Your task to perform on an android device: delete location history Image 0: 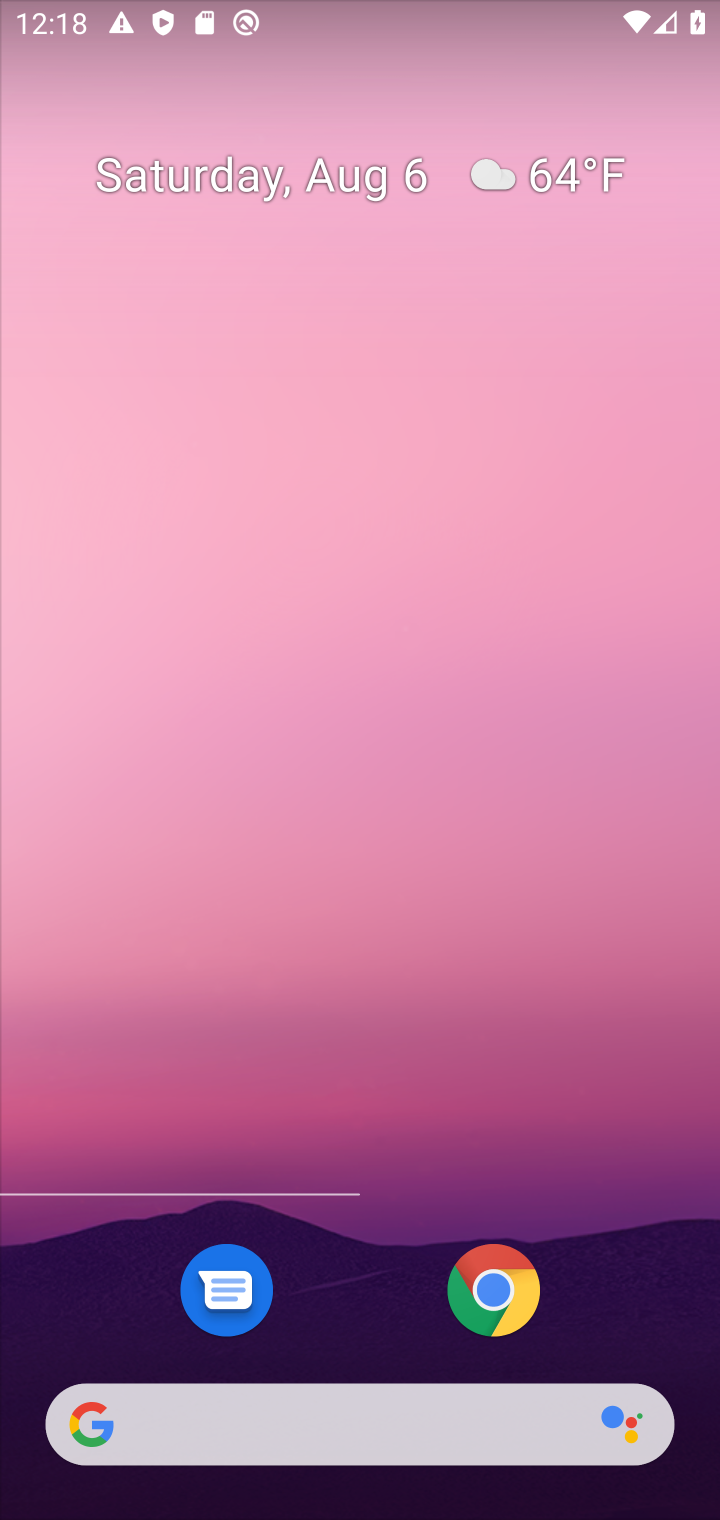
Step 0: press home button
Your task to perform on an android device: delete location history Image 1: 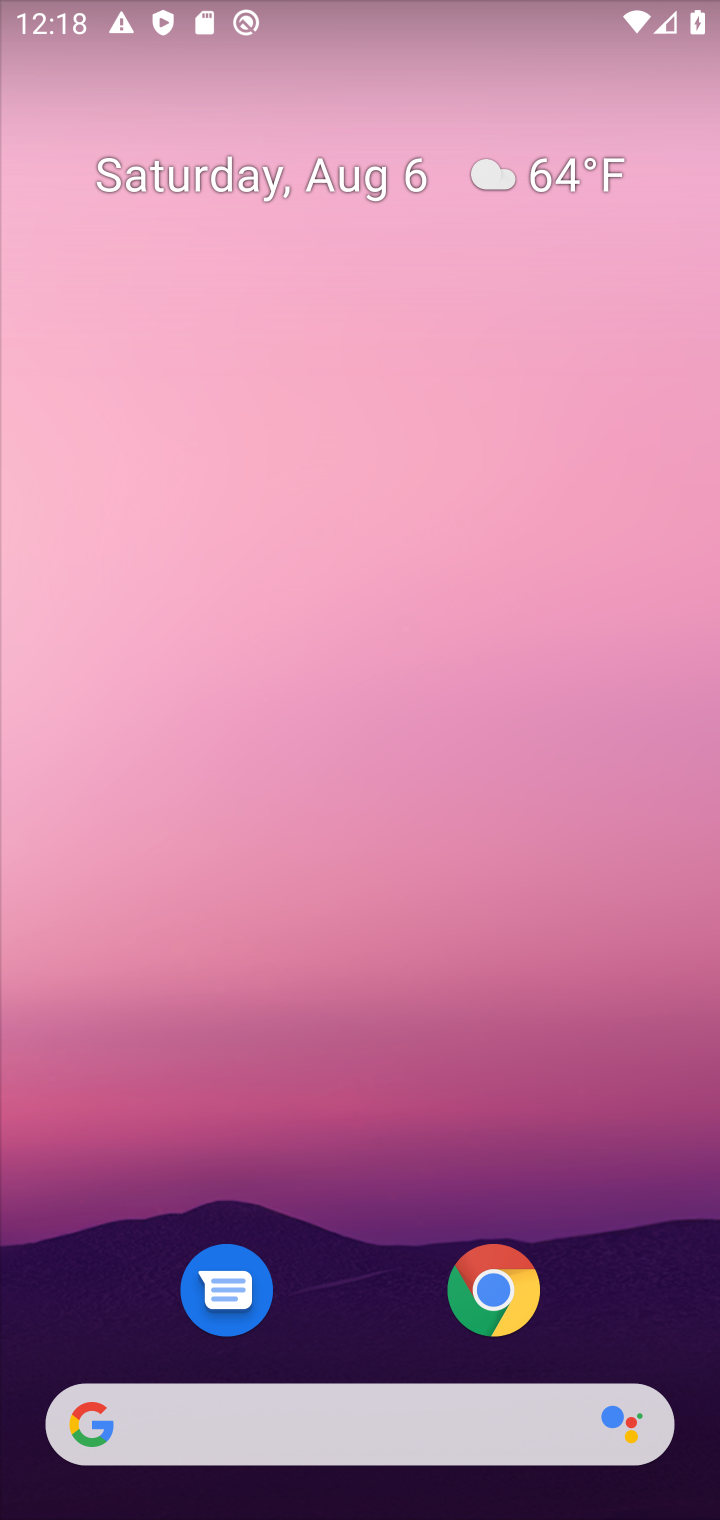
Step 1: press home button
Your task to perform on an android device: delete location history Image 2: 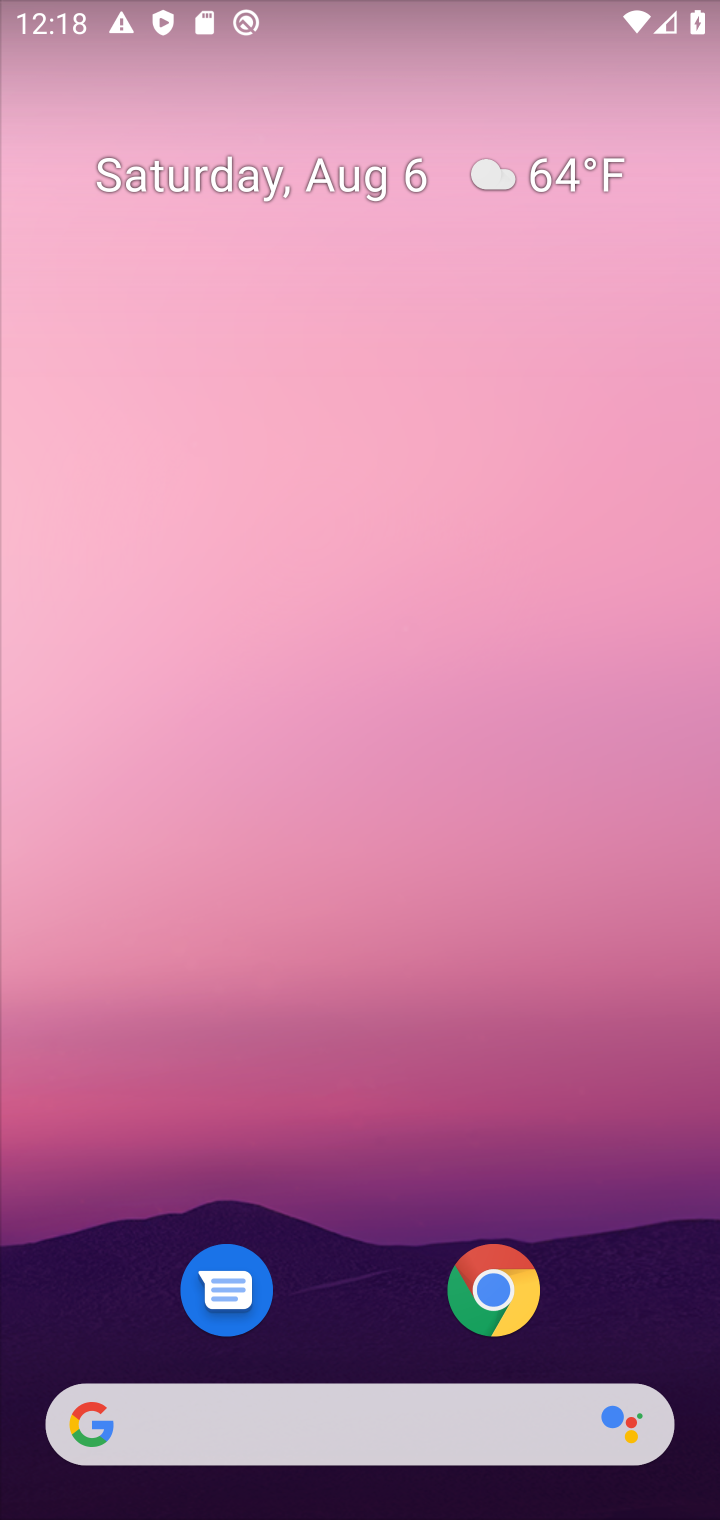
Step 2: drag from (360, 1333) to (355, 5)
Your task to perform on an android device: delete location history Image 3: 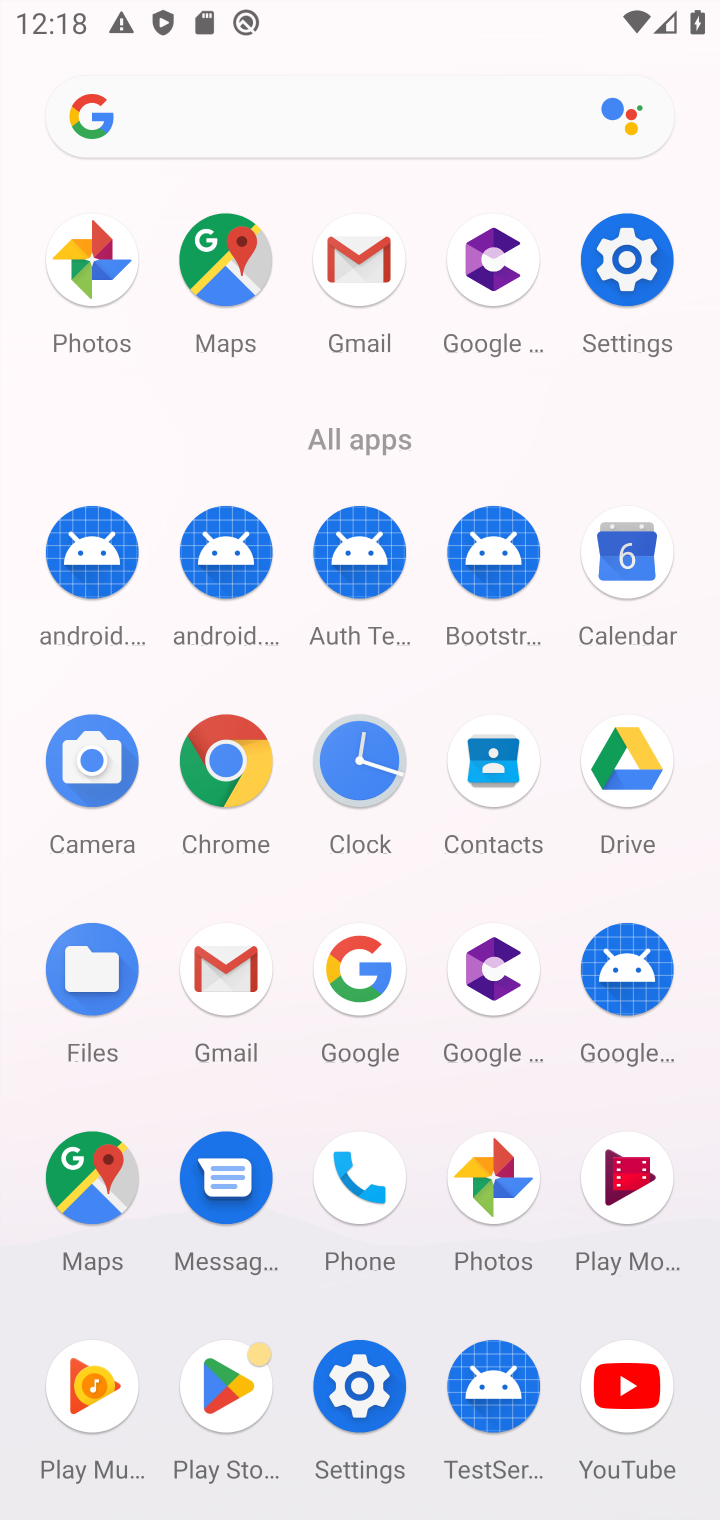
Step 3: click (92, 1174)
Your task to perform on an android device: delete location history Image 4: 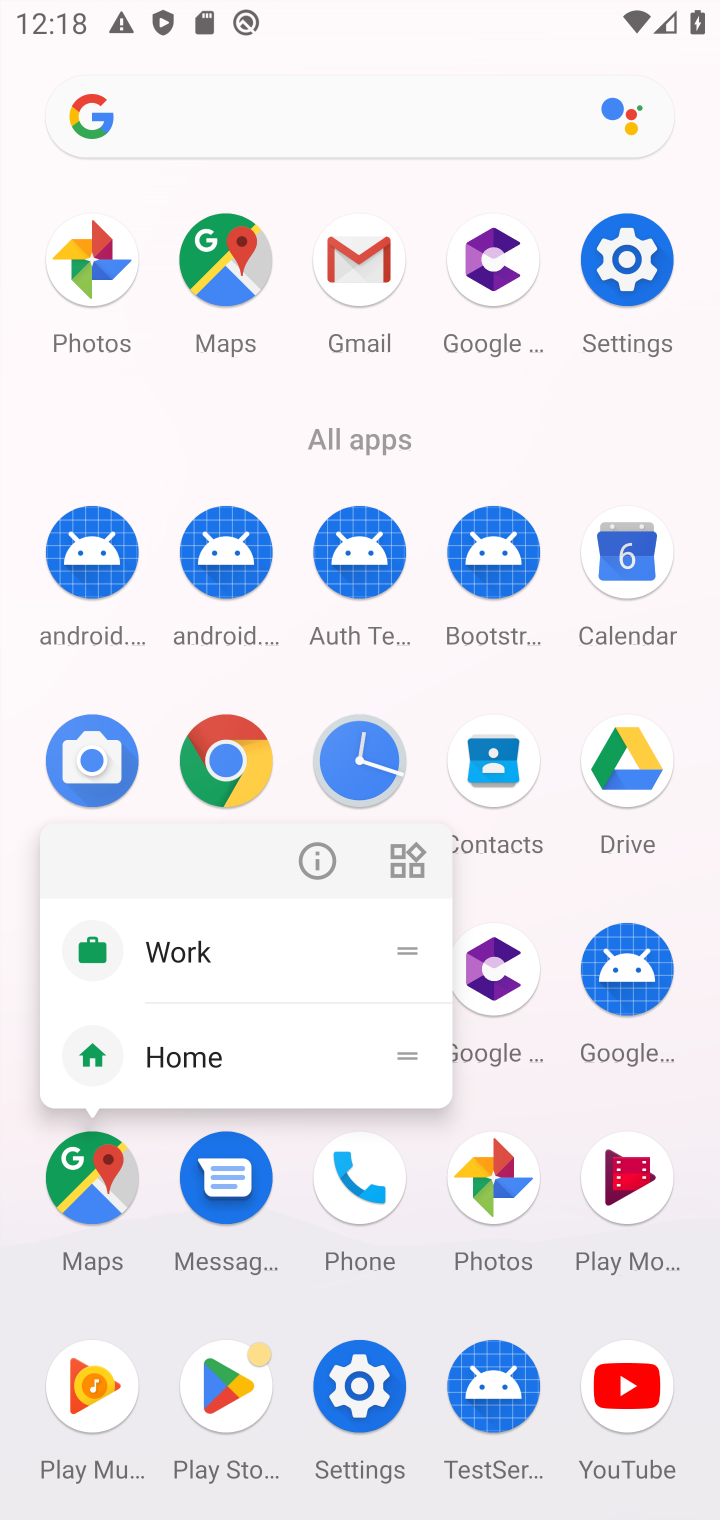
Step 4: click (94, 1174)
Your task to perform on an android device: delete location history Image 5: 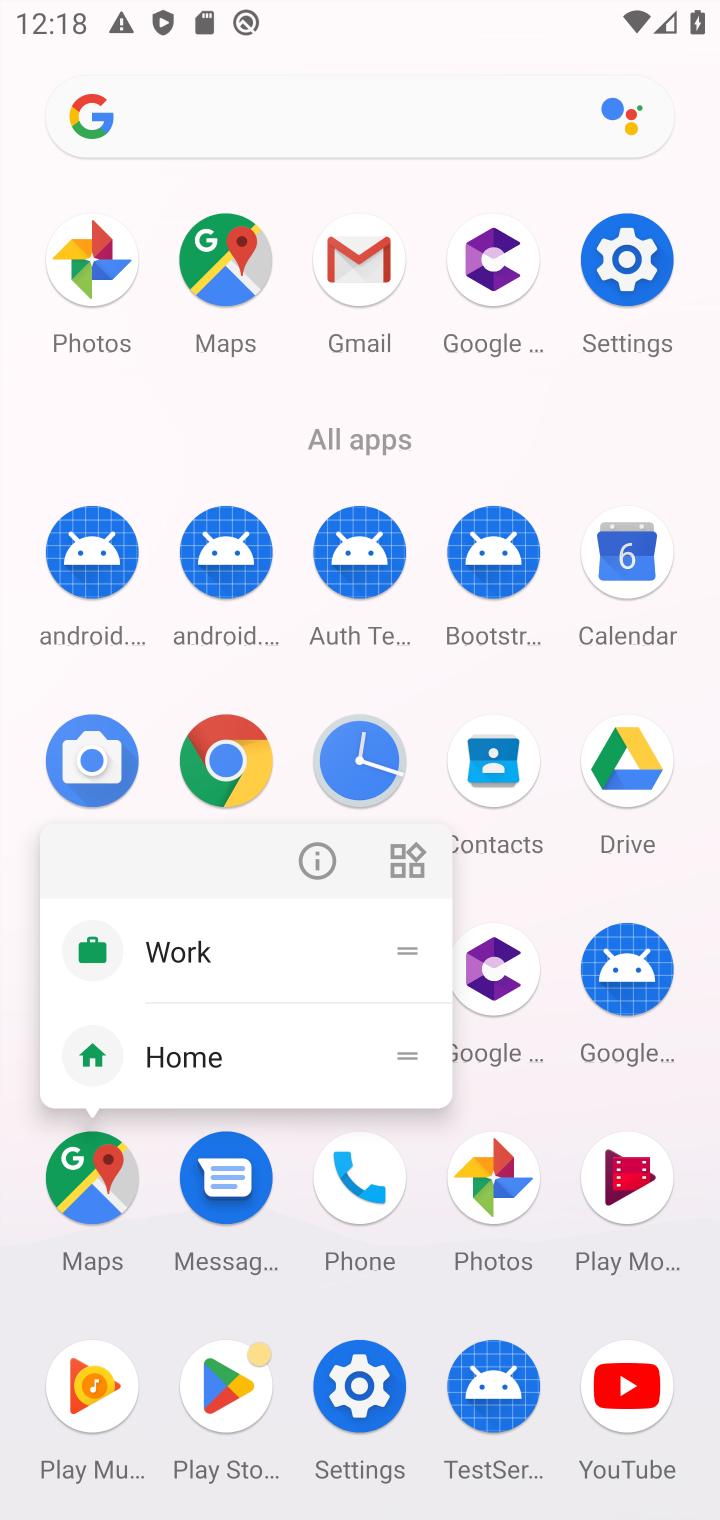
Step 5: click (86, 1174)
Your task to perform on an android device: delete location history Image 6: 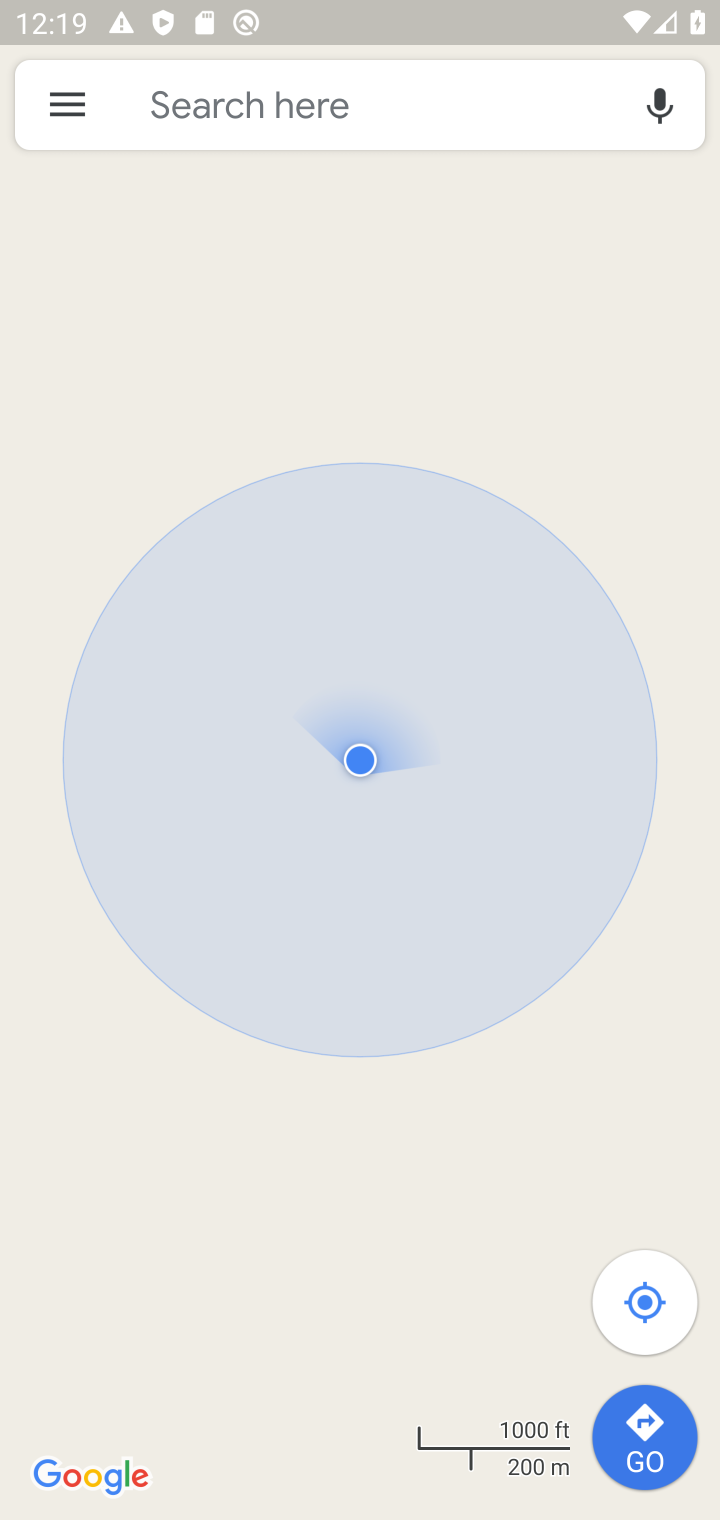
Step 6: click (71, 99)
Your task to perform on an android device: delete location history Image 7: 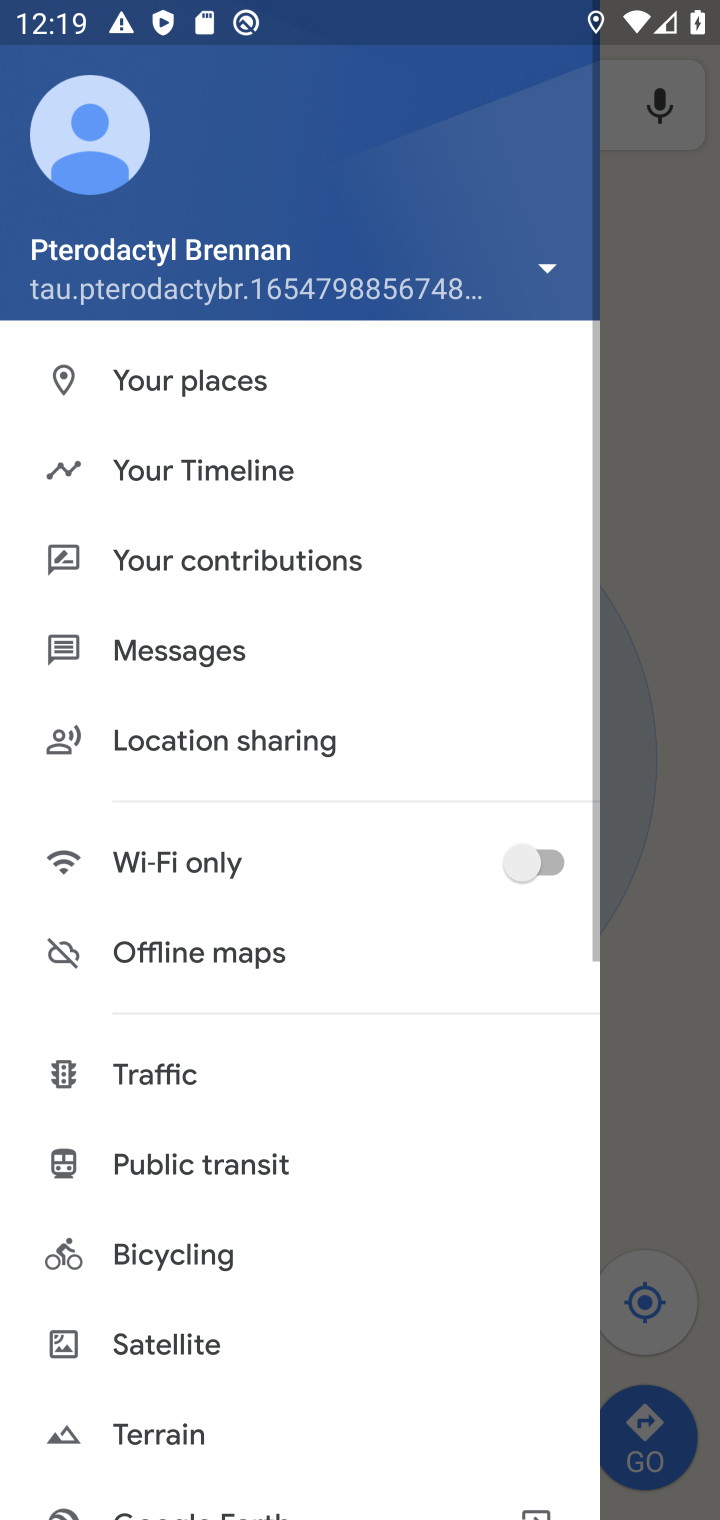
Step 7: click (158, 472)
Your task to perform on an android device: delete location history Image 8: 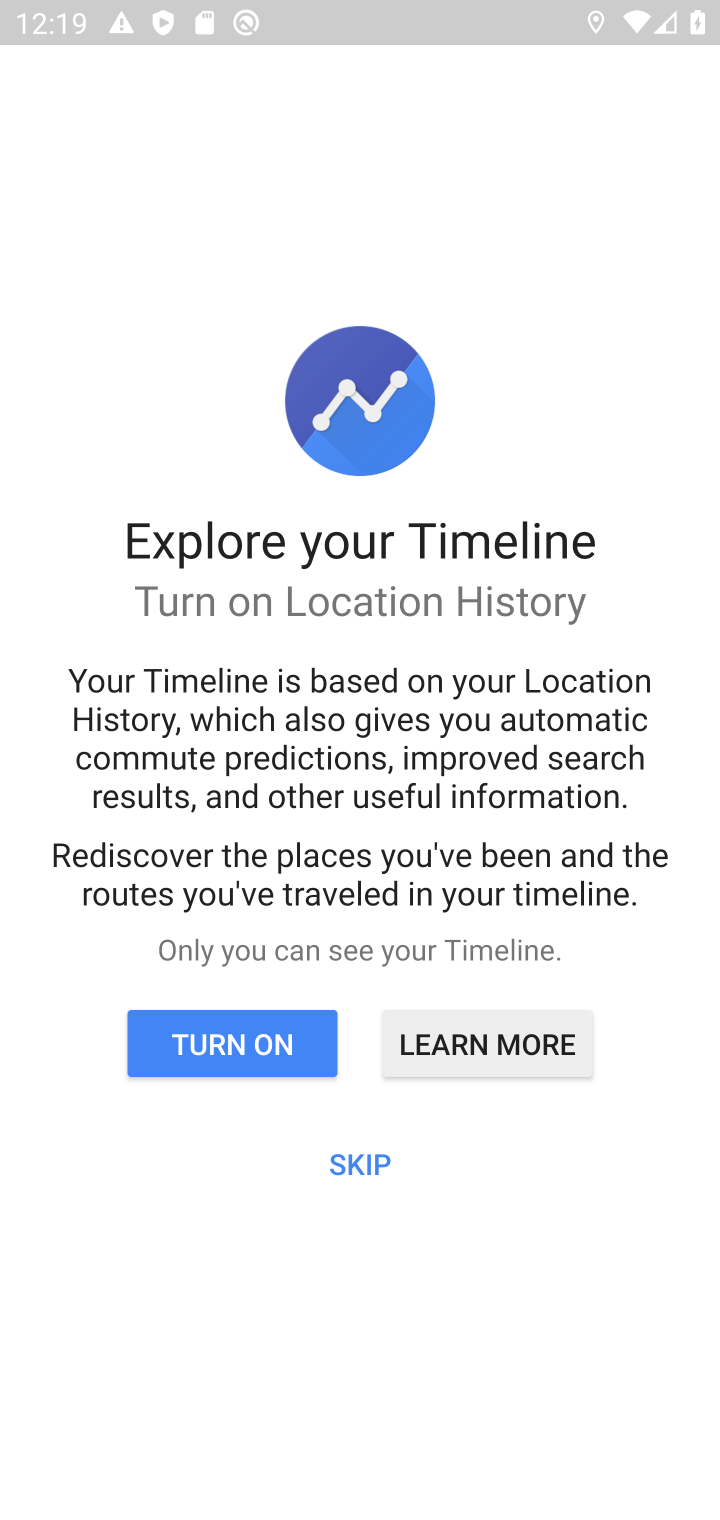
Step 8: click (232, 1041)
Your task to perform on an android device: delete location history Image 9: 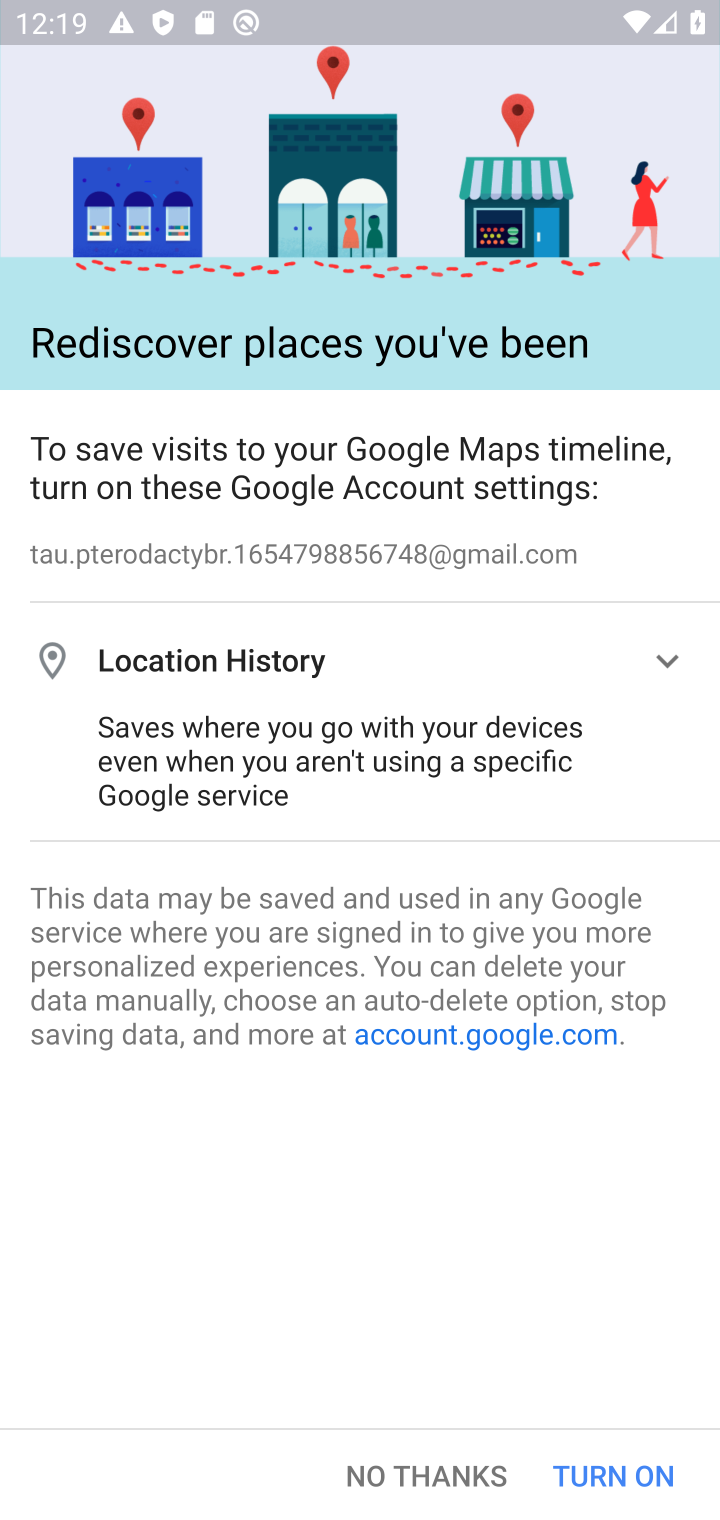
Step 9: click (600, 1467)
Your task to perform on an android device: delete location history Image 10: 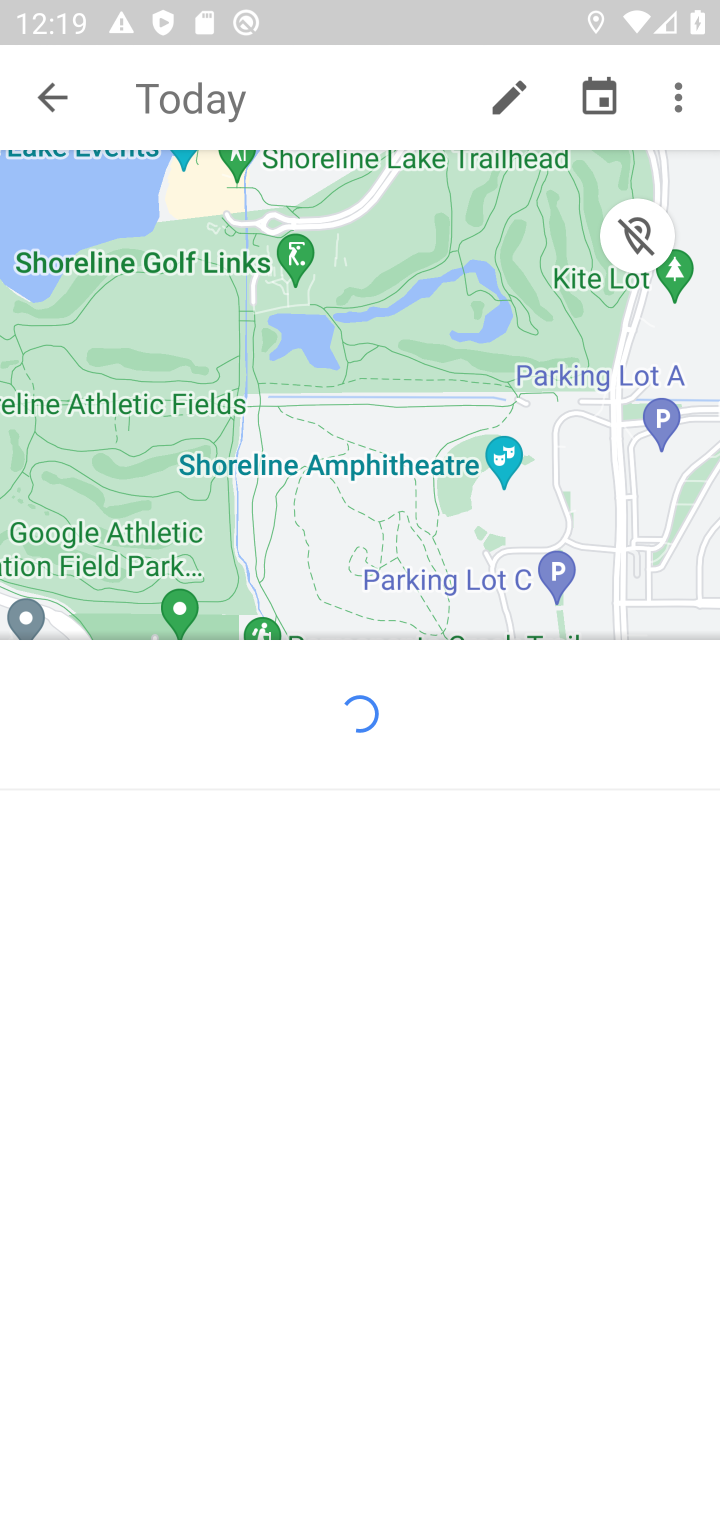
Step 10: click (609, 1464)
Your task to perform on an android device: delete location history Image 11: 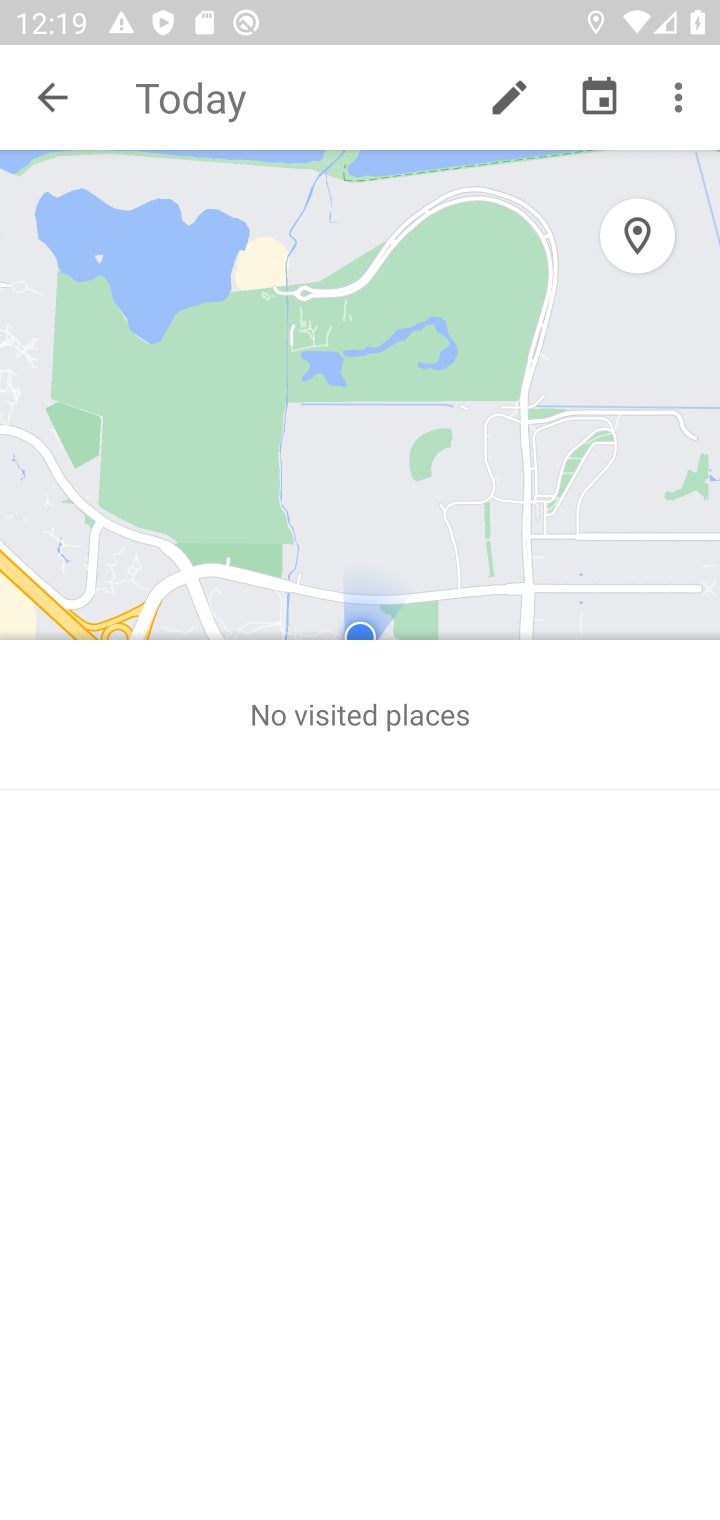
Step 11: click (674, 94)
Your task to perform on an android device: delete location history Image 12: 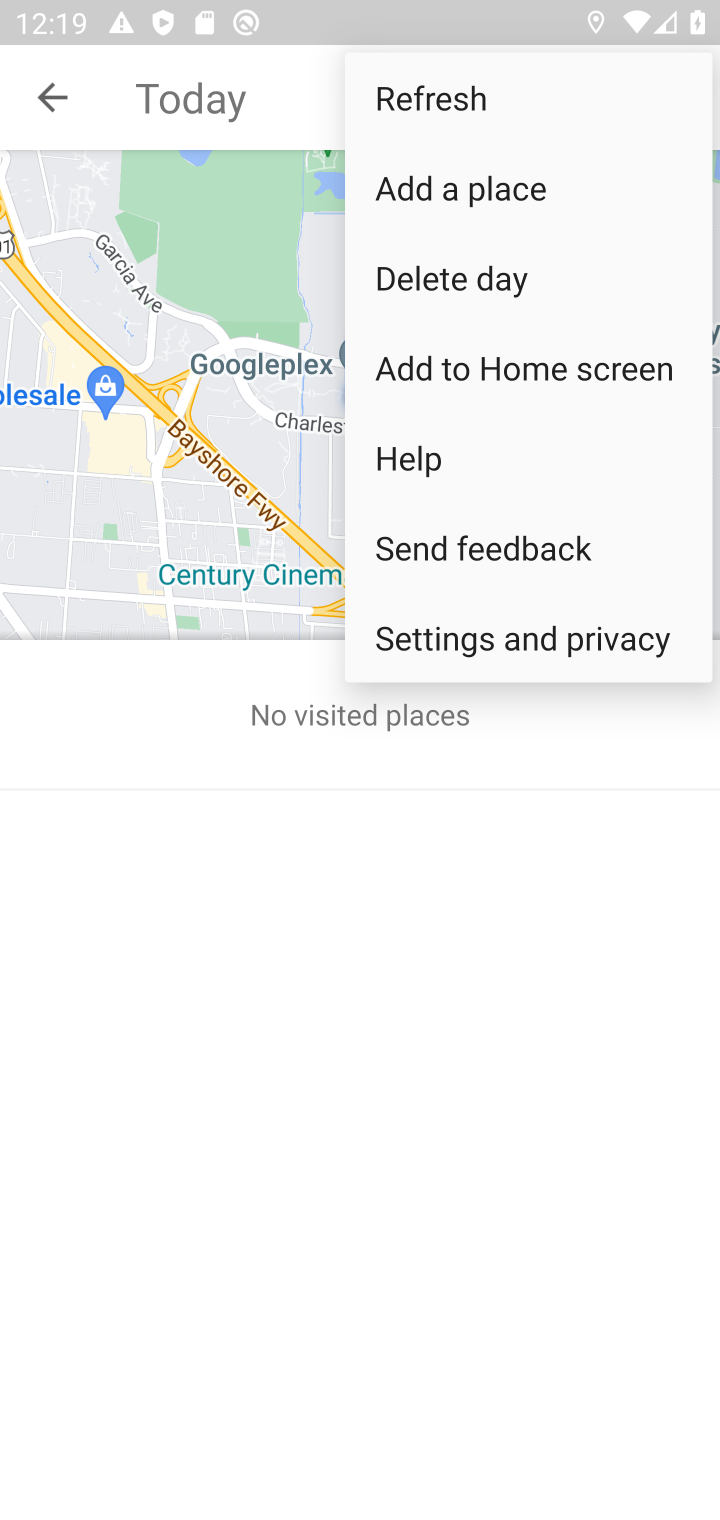
Step 12: click (504, 638)
Your task to perform on an android device: delete location history Image 13: 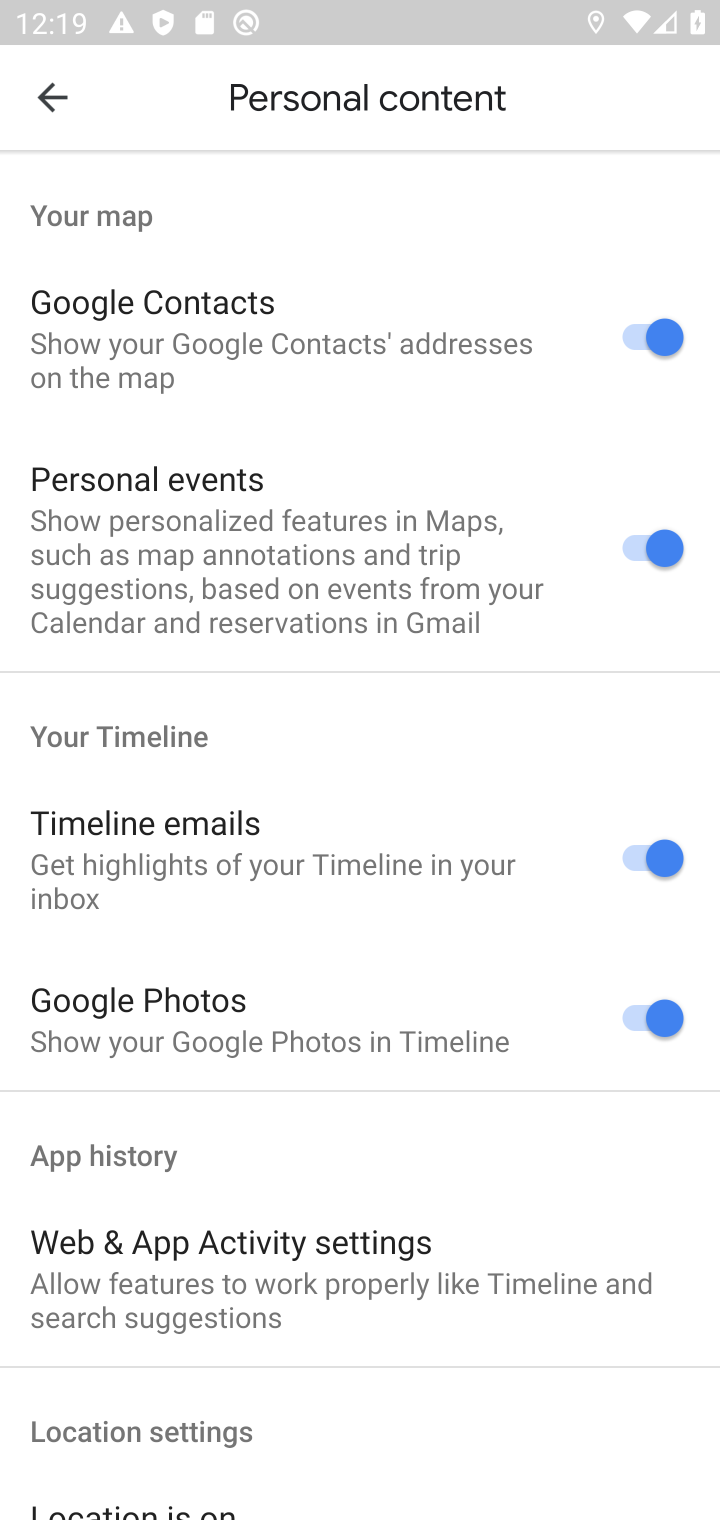
Step 13: drag from (351, 1417) to (360, 615)
Your task to perform on an android device: delete location history Image 14: 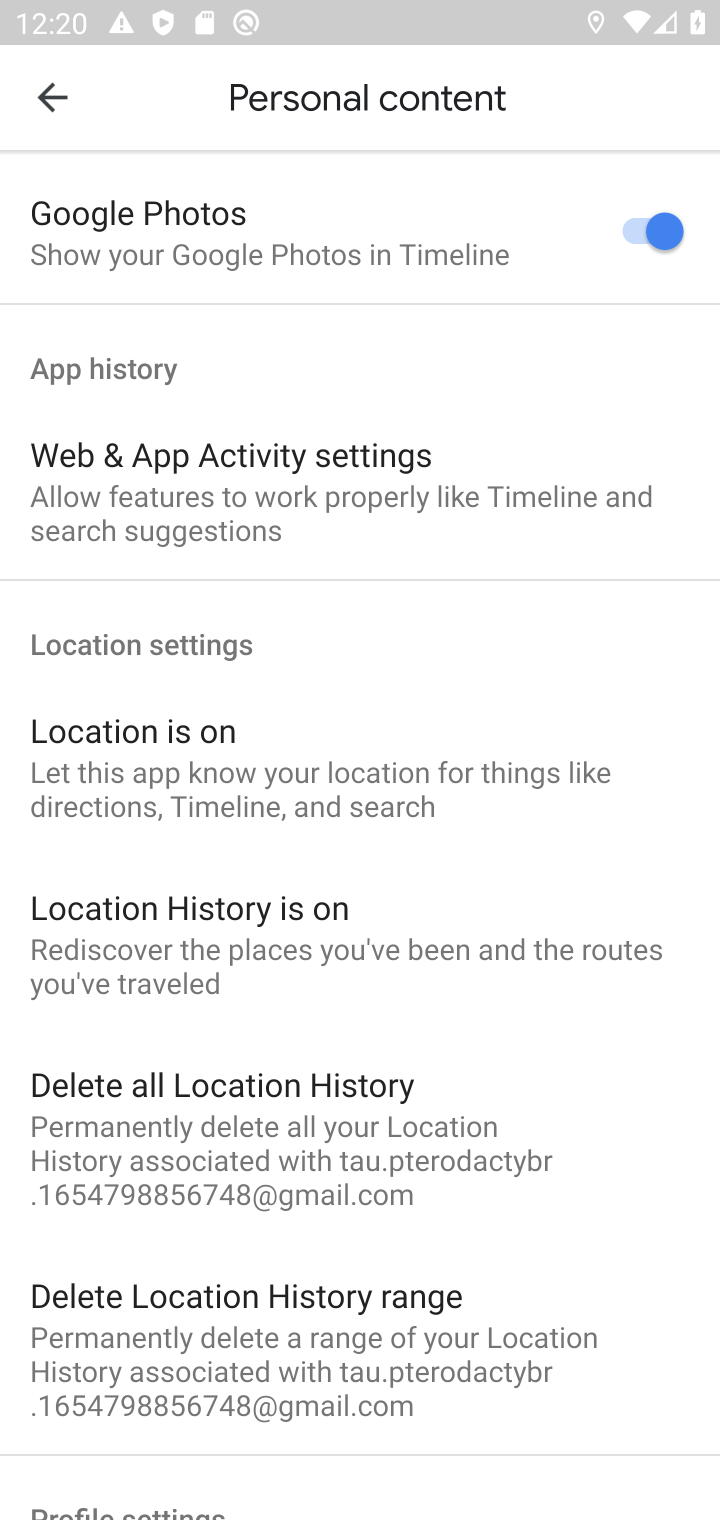
Step 14: click (288, 1142)
Your task to perform on an android device: delete location history Image 15: 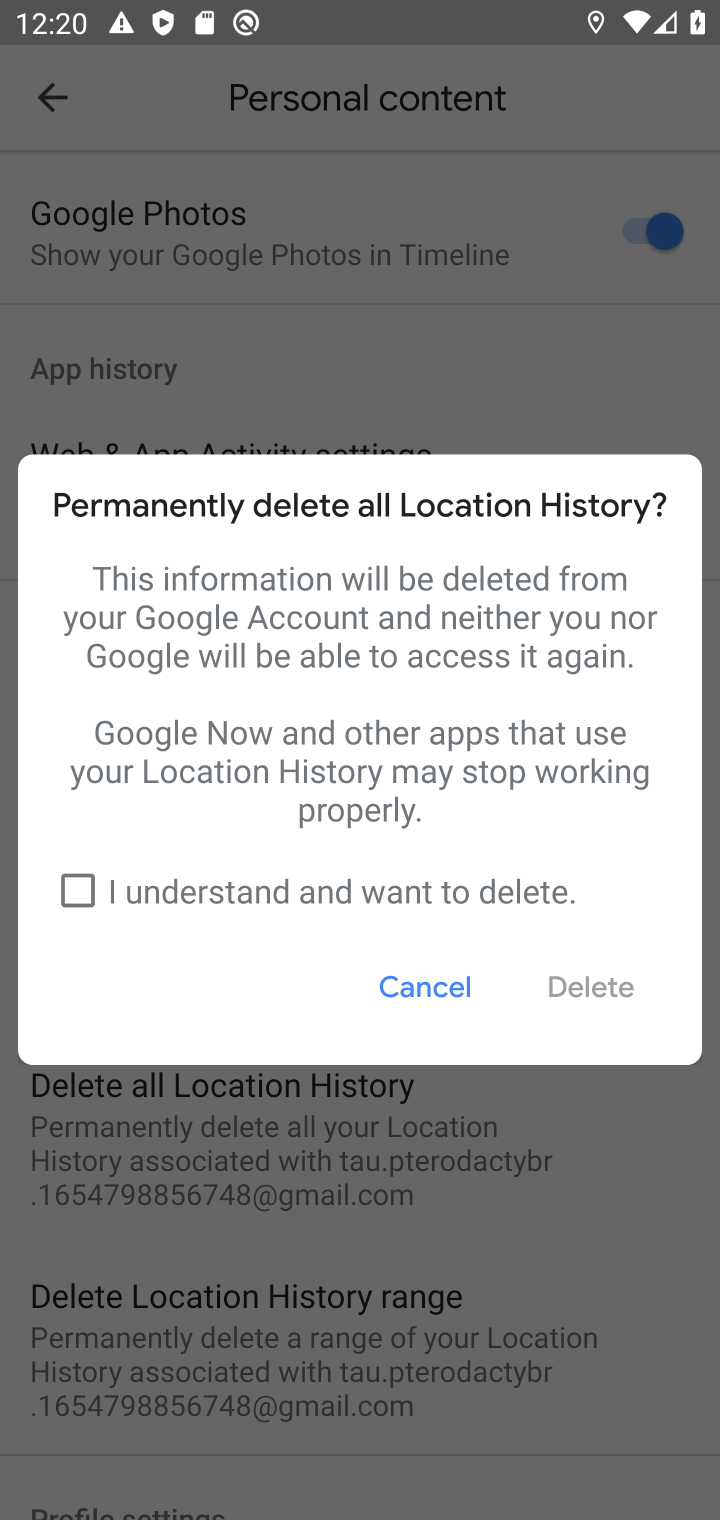
Step 15: click (74, 883)
Your task to perform on an android device: delete location history Image 16: 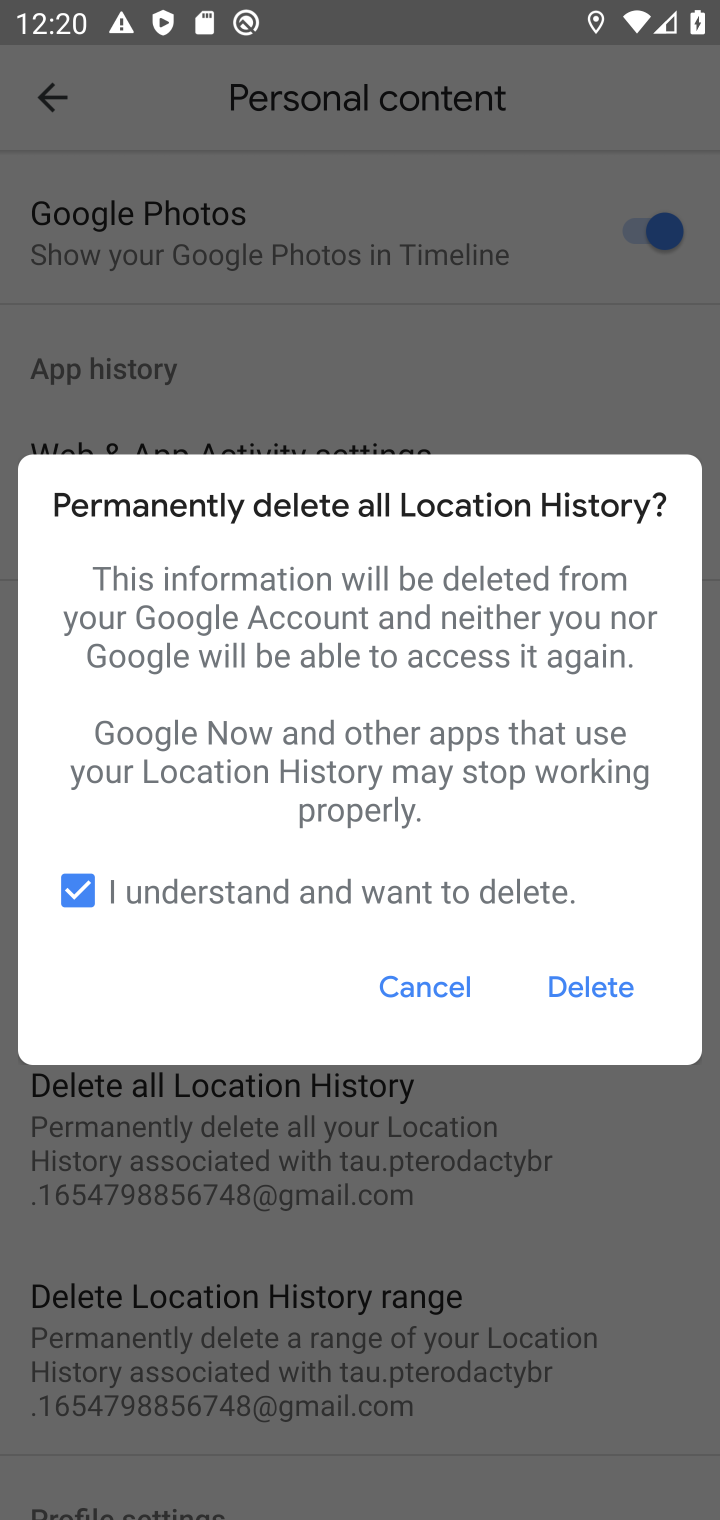
Step 16: click (587, 990)
Your task to perform on an android device: delete location history Image 17: 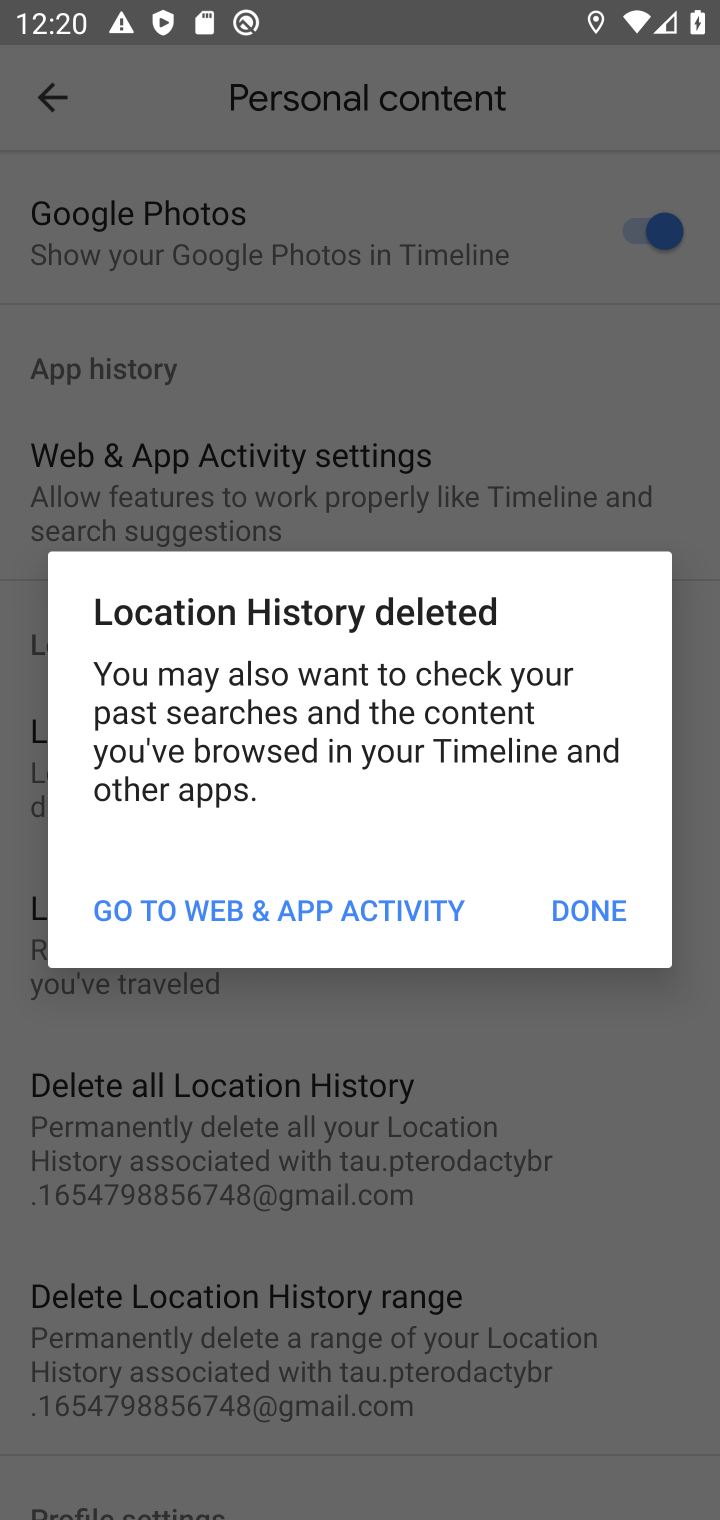
Step 17: click (574, 906)
Your task to perform on an android device: delete location history Image 18: 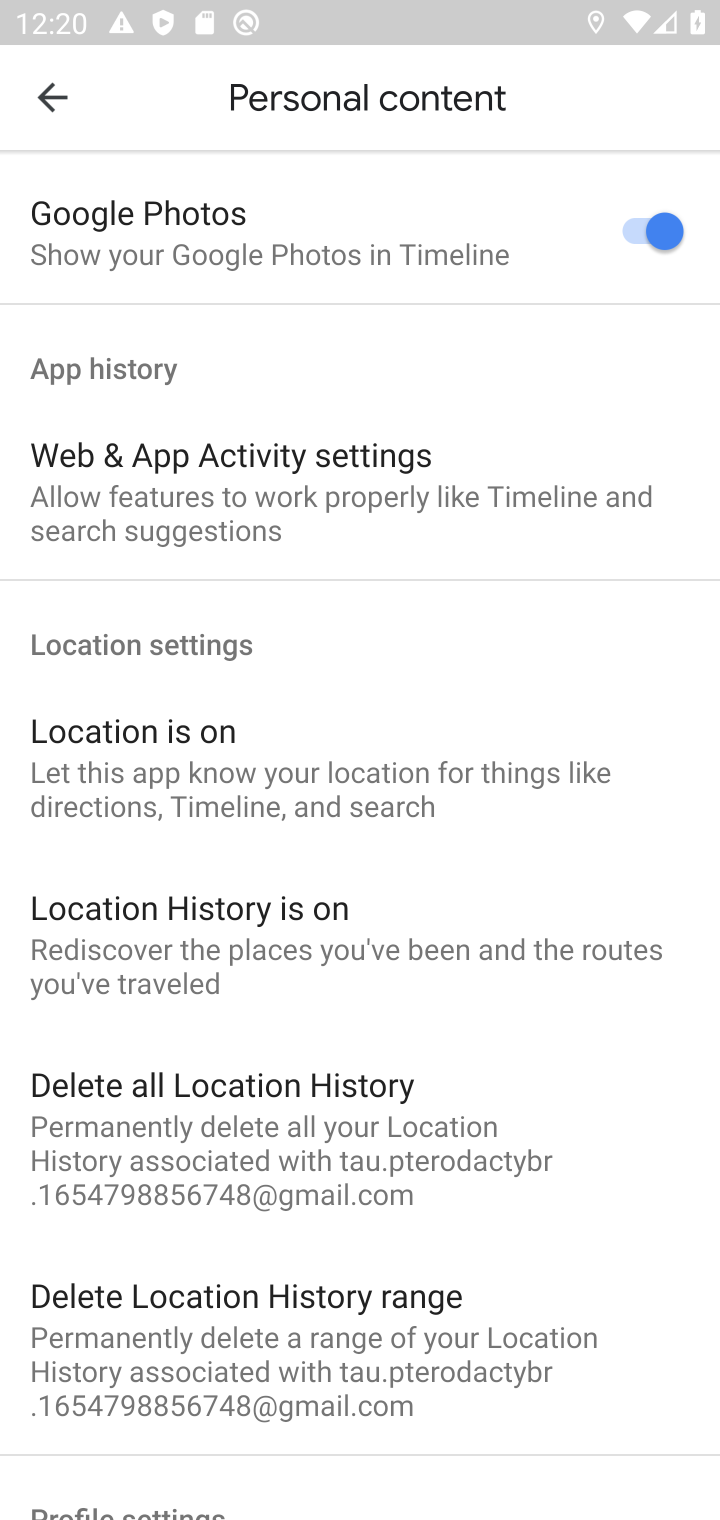
Step 18: task complete